Your task to perform on an android device: Open Amazon Image 0: 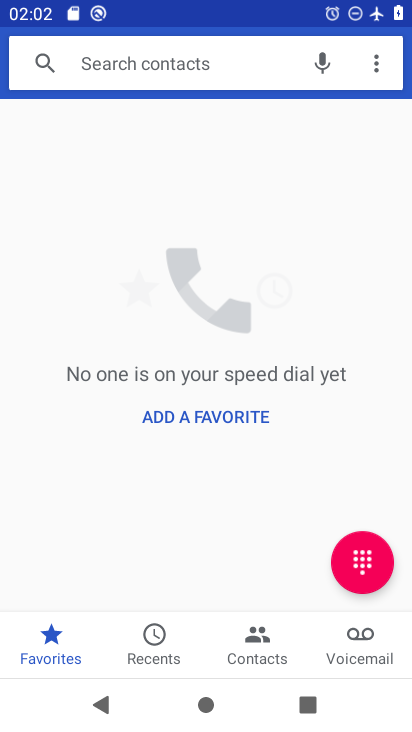
Step 0: press home button
Your task to perform on an android device: Open Amazon Image 1: 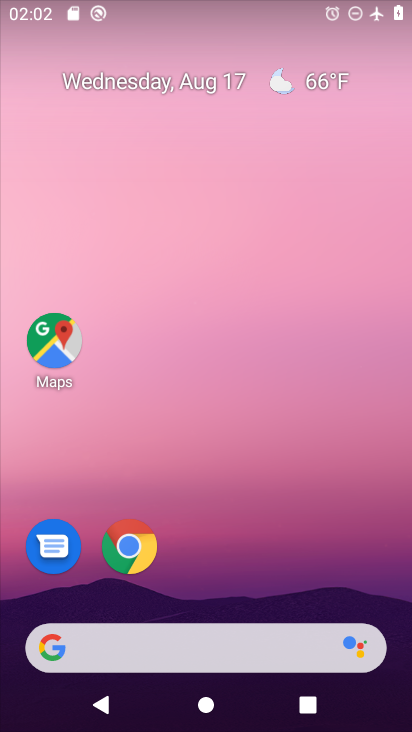
Step 1: click (133, 546)
Your task to perform on an android device: Open Amazon Image 2: 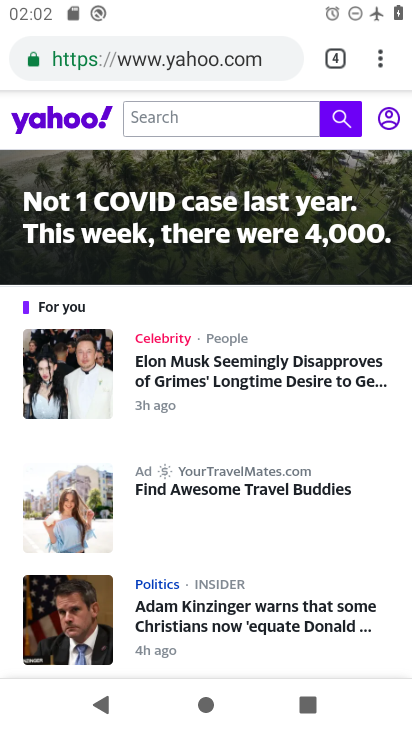
Step 2: click (381, 49)
Your task to perform on an android device: Open Amazon Image 3: 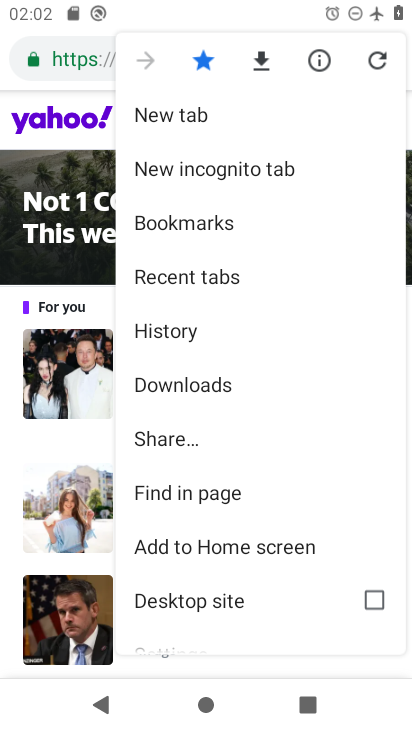
Step 3: click (195, 108)
Your task to perform on an android device: Open Amazon Image 4: 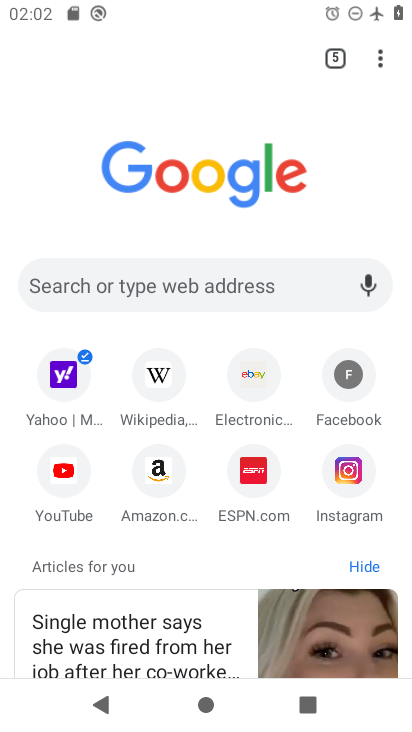
Step 4: click (160, 465)
Your task to perform on an android device: Open Amazon Image 5: 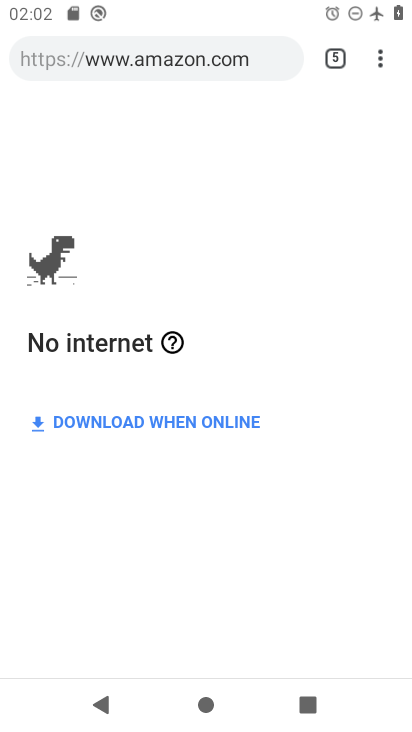
Step 5: task complete